Your task to perform on an android device: turn on showing notifications on the lock screen Image 0: 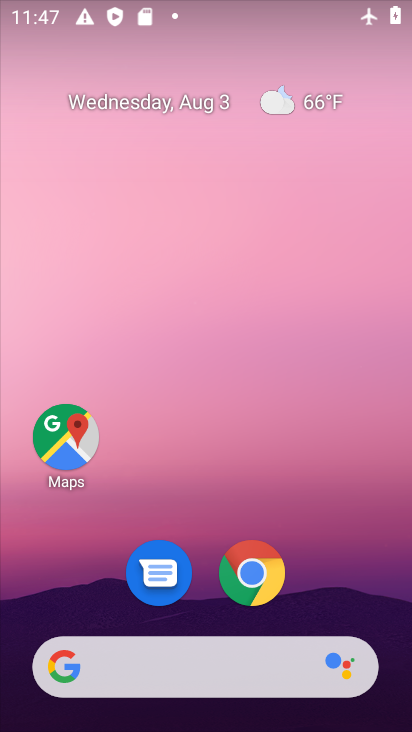
Step 0: drag from (347, 503) to (337, 74)
Your task to perform on an android device: turn on showing notifications on the lock screen Image 1: 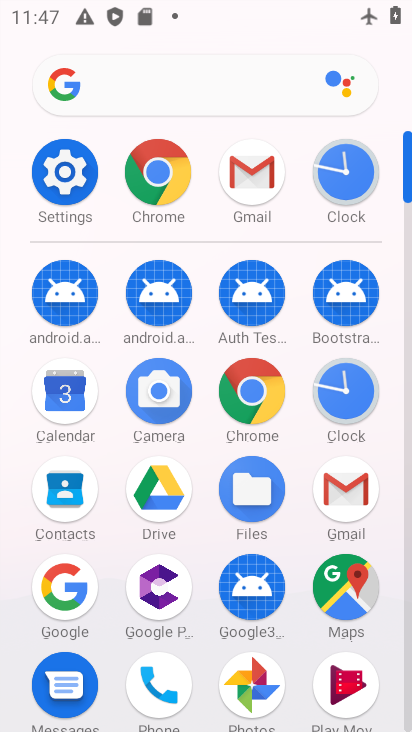
Step 1: click (83, 165)
Your task to perform on an android device: turn on showing notifications on the lock screen Image 2: 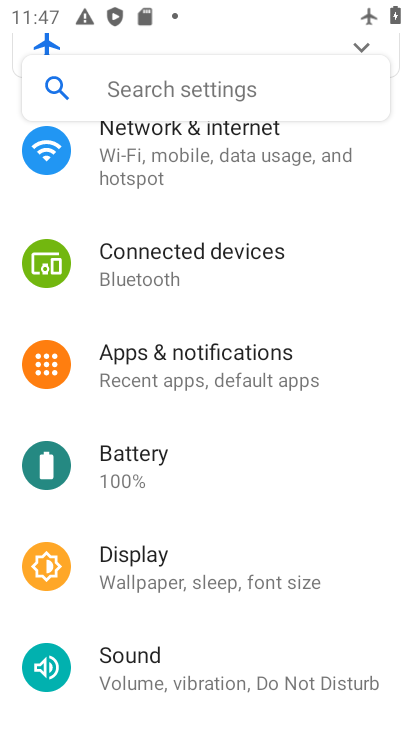
Step 2: click (227, 339)
Your task to perform on an android device: turn on showing notifications on the lock screen Image 3: 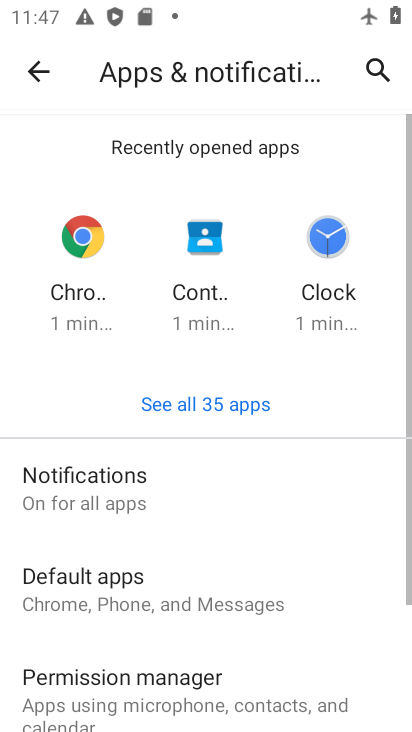
Step 3: click (89, 473)
Your task to perform on an android device: turn on showing notifications on the lock screen Image 4: 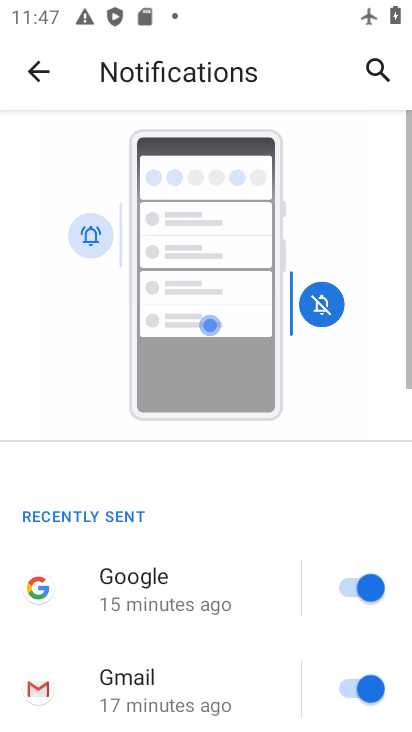
Step 4: drag from (222, 541) to (314, 70)
Your task to perform on an android device: turn on showing notifications on the lock screen Image 5: 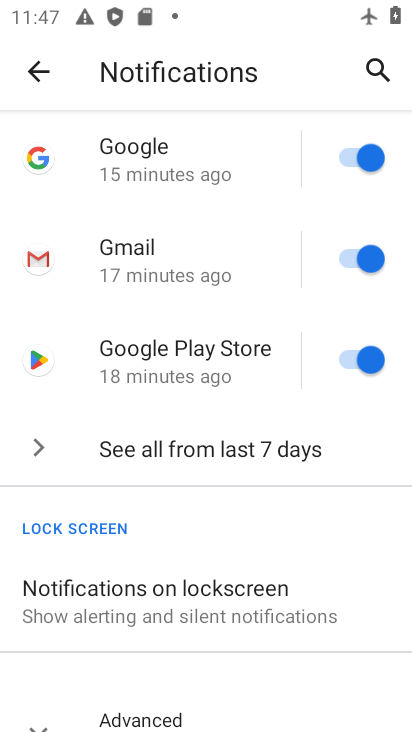
Step 5: click (225, 586)
Your task to perform on an android device: turn on showing notifications on the lock screen Image 6: 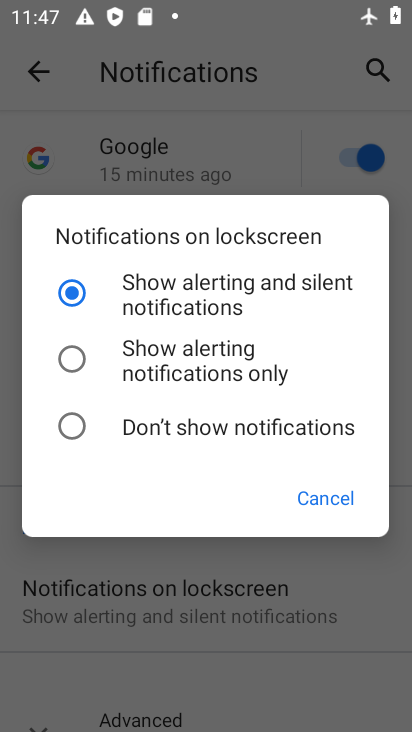
Step 6: click (201, 366)
Your task to perform on an android device: turn on showing notifications on the lock screen Image 7: 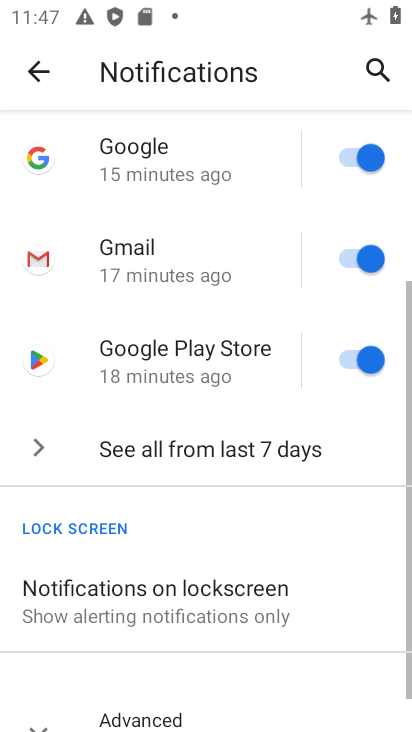
Step 7: task complete